Your task to perform on an android device: visit the assistant section in the google photos Image 0: 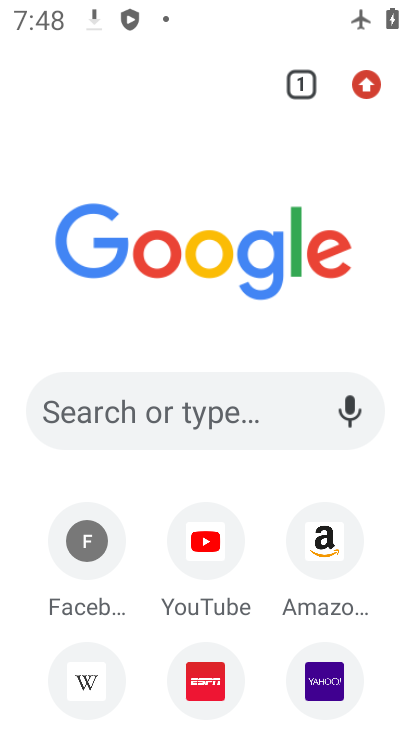
Step 0: press home button
Your task to perform on an android device: visit the assistant section in the google photos Image 1: 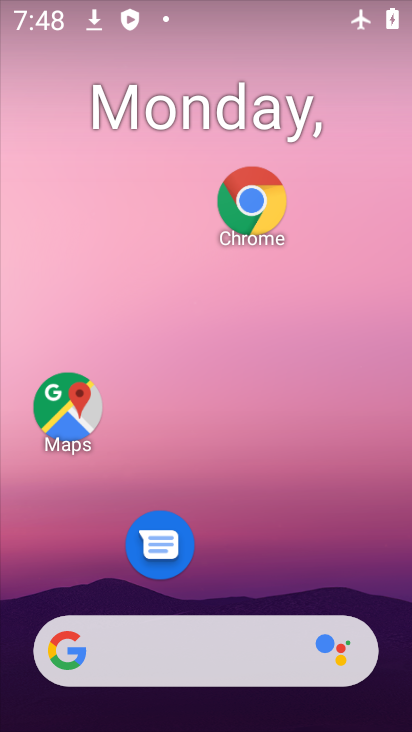
Step 1: drag from (209, 586) to (205, 125)
Your task to perform on an android device: visit the assistant section in the google photos Image 2: 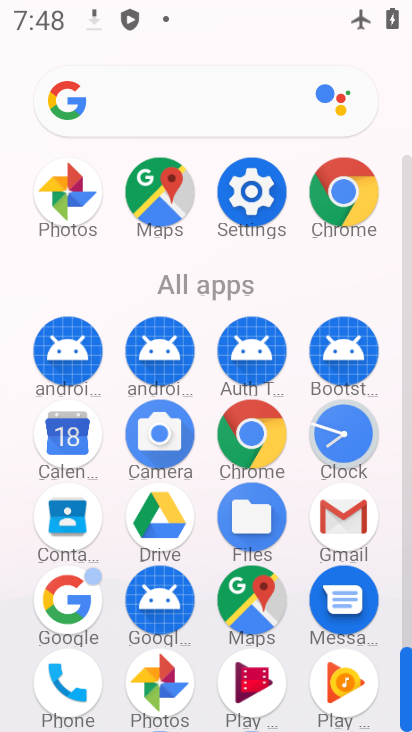
Step 2: click (166, 680)
Your task to perform on an android device: visit the assistant section in the google photos Image 3: 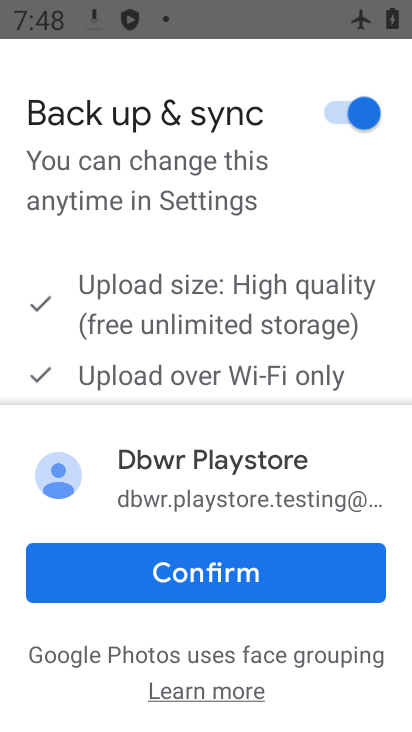
Step 3: click (222, 573)
Your task to perform on an android device: visit the assistant section in the google photos Image 4: 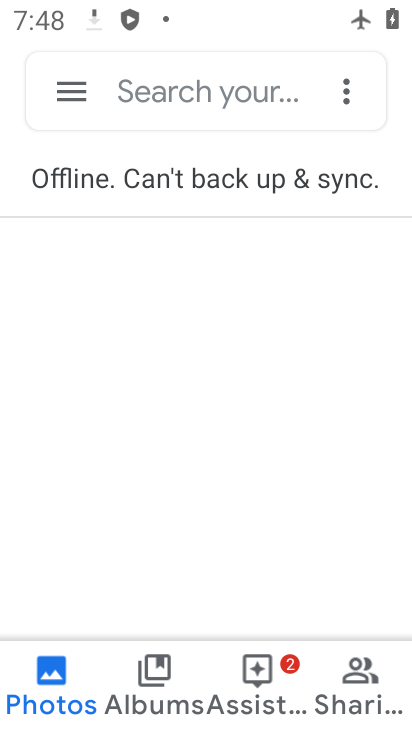
Step 4: click (264, 660)
Your task to perform on an android device: visit the assistant section in the google photos Image 5: 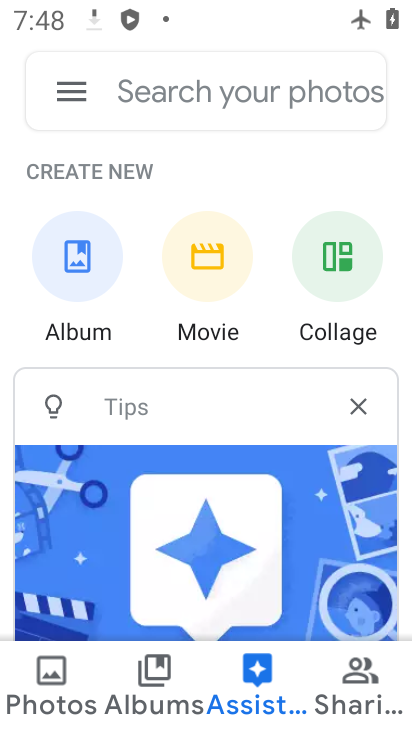
Step 5: task complete